Your task to perform on an android device: allow notifications from all sites in the chrome app Image 0: 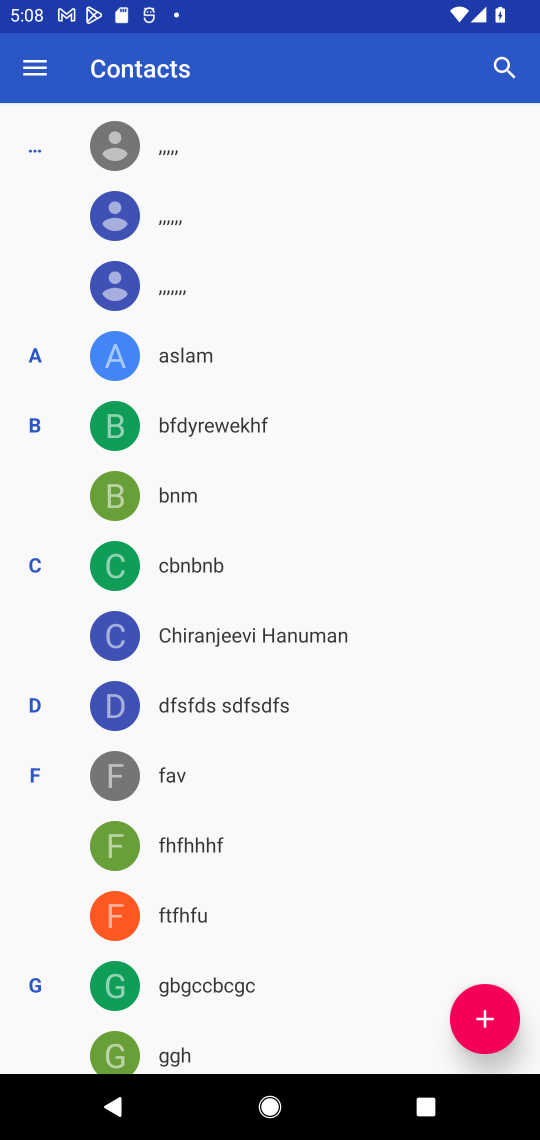
Step 0: press home button
Your task to perform on an android device: allow notifications from all sites in the chrome app Image 1: 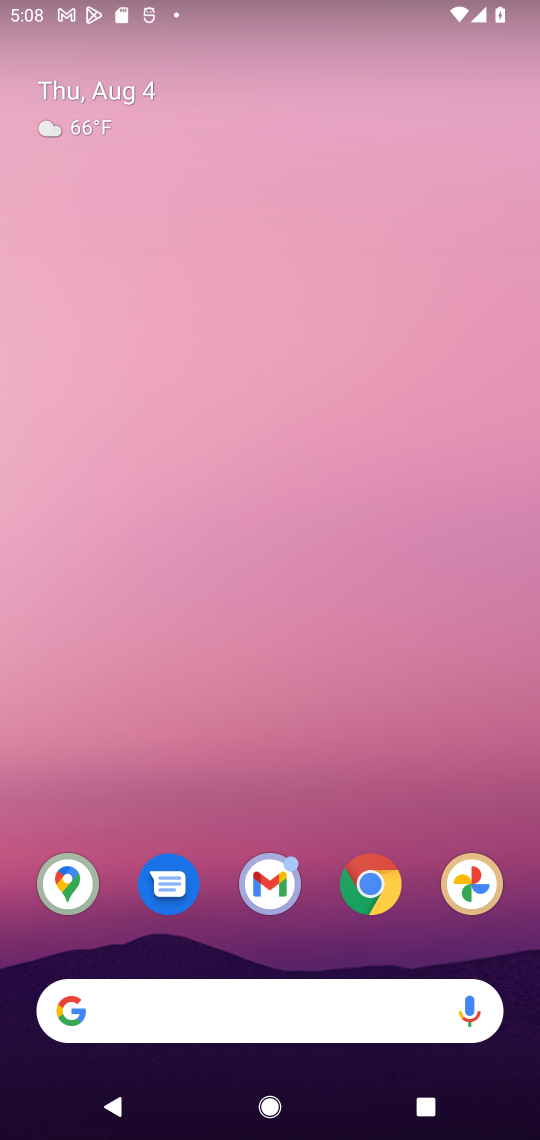
Step 1: click (372, 868)
Your task to perform on an android device: allow notifications from all sites in the chrome app Image 2: 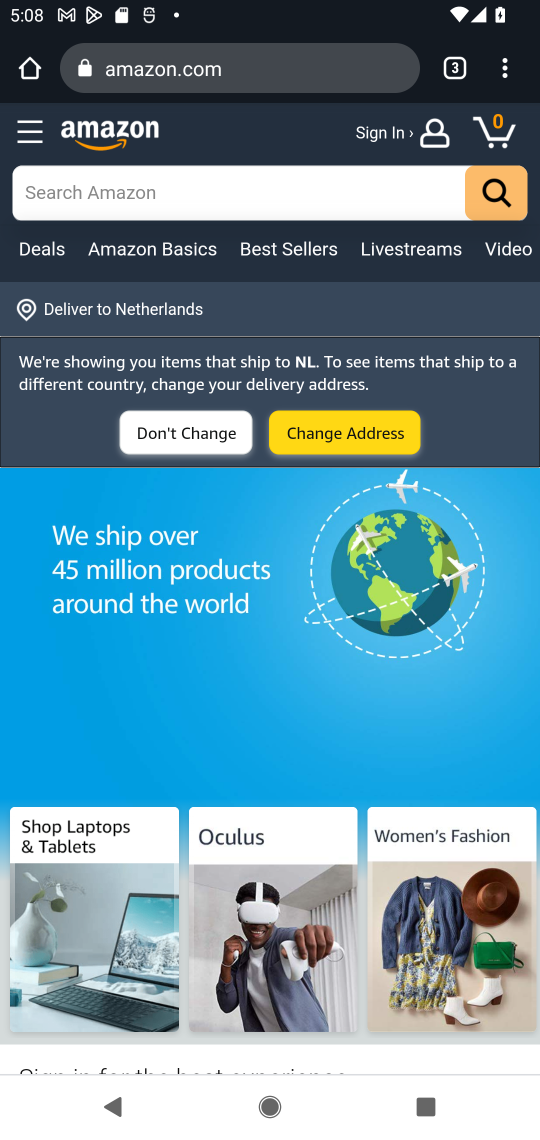
Step 2: click (501, 67)
Your task to perform on an android device: allow notifications from all sites in the chrome app Image 3: 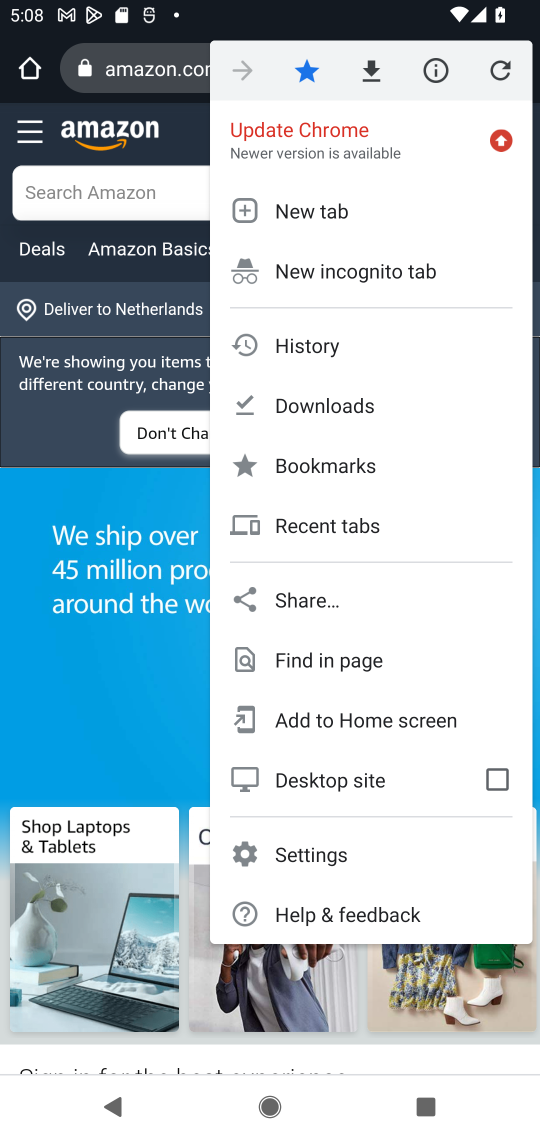
Step 3: click (328, 847)
Your task to perform on an android device: allow notifications from all sites in the chrome app Image 4: 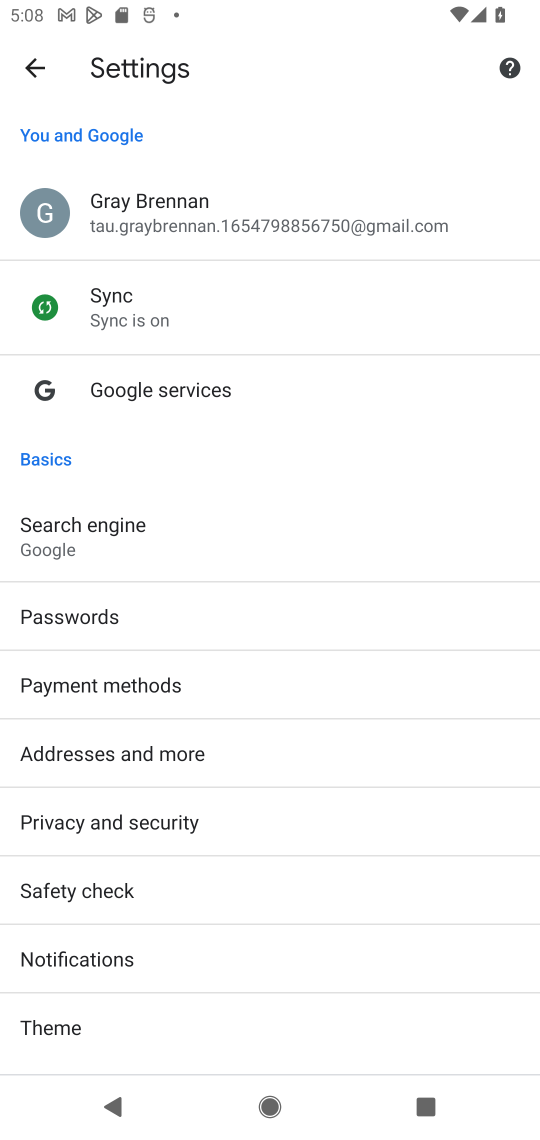
Step 4: task complete